Your task to perform on an android device: Search for "macbook pro" on ebay.com, select the first entry, and add it to the cart. Image 0: 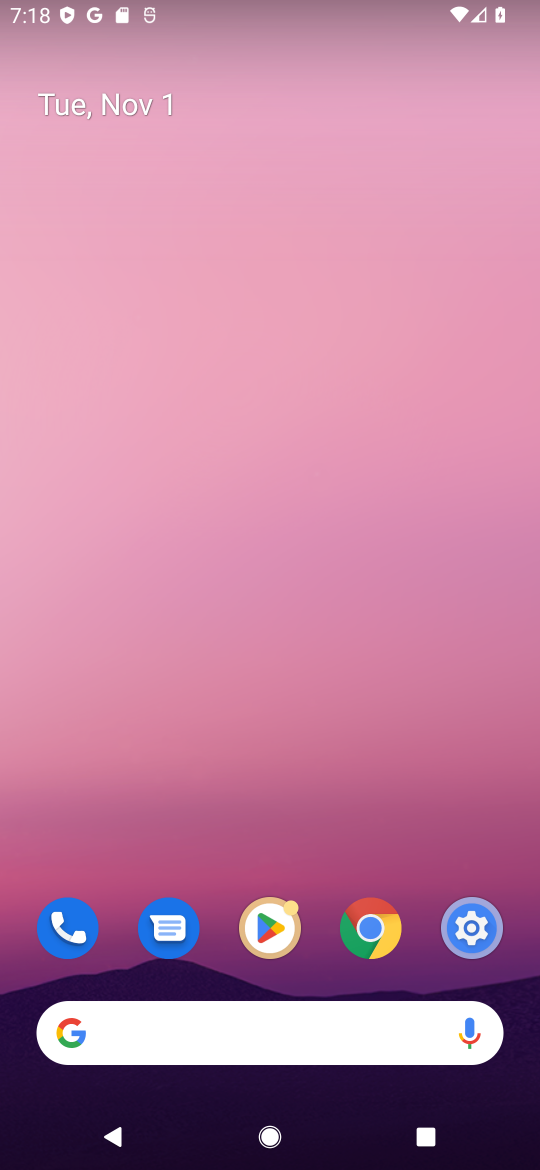
Step 0: click (232, 1039)
Your task to perform on an android device: Search for "macbook pro" on ebay.com, select the first entry, and add it to the cart. Image 1: 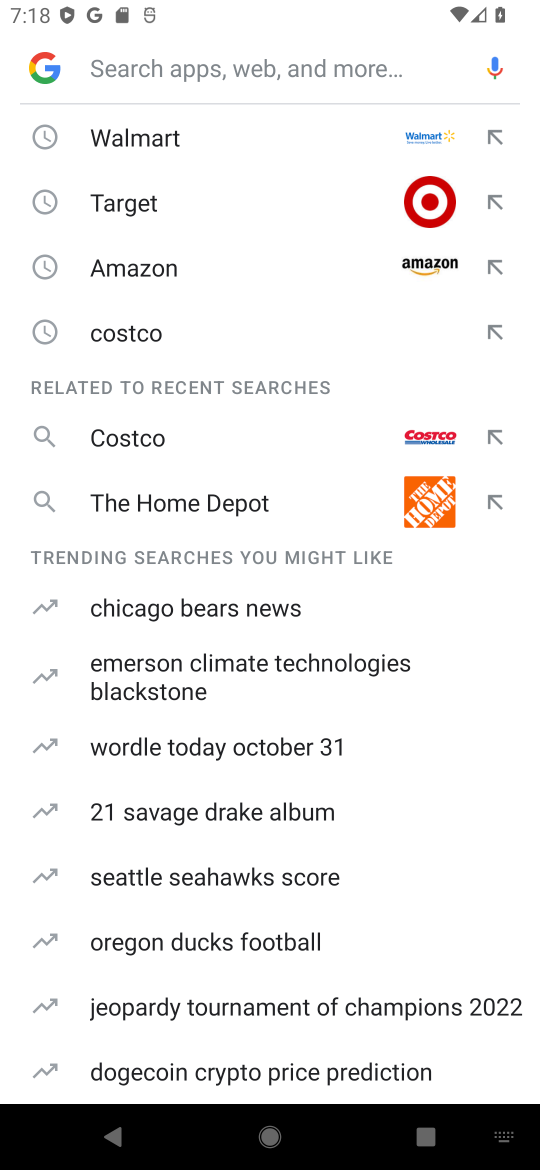
Step 1: type "ebay.com"
Your task to perform on an android device: Search for "macbook pro" on ebay.com, select the first entry, and add it to the cart. Image 2: 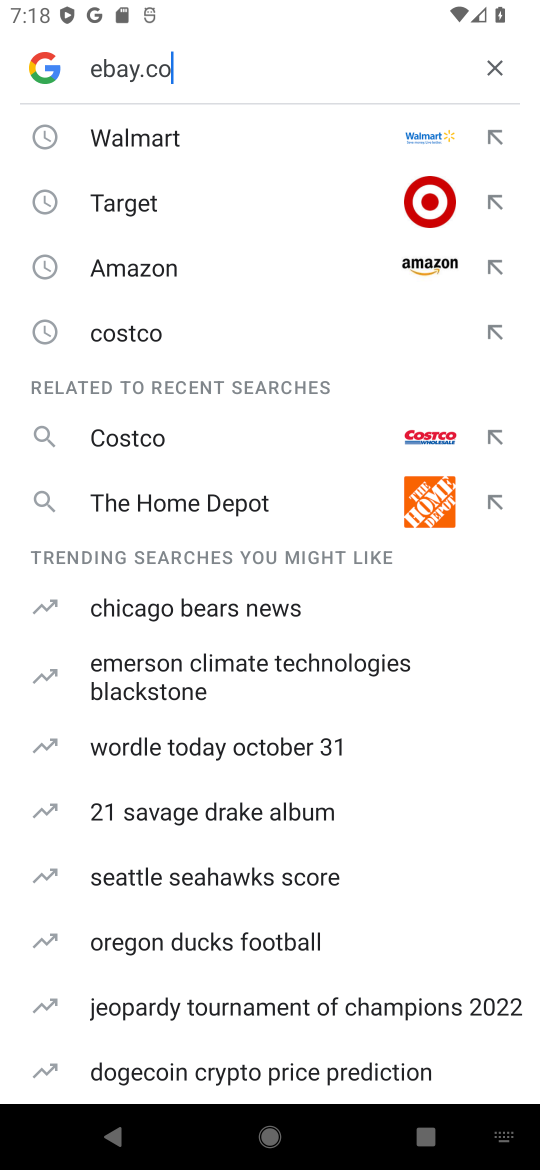
Step 2: type ""
Your task to perform on an android device: Search for "macbook pro" on ebay.com, select the first entry, and add it to the cart. Image 3: 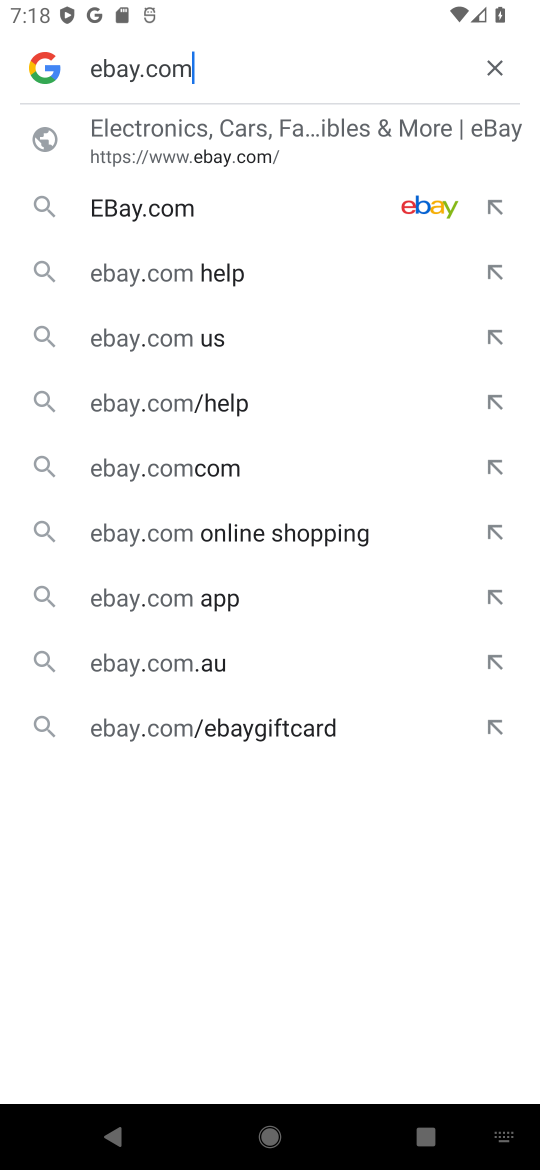
Step 3: click (124, 210)
Your task to perform on an android device: Search for "macbook pro" on ebay.com, select the first entry, and add it to the cart. Image 4: 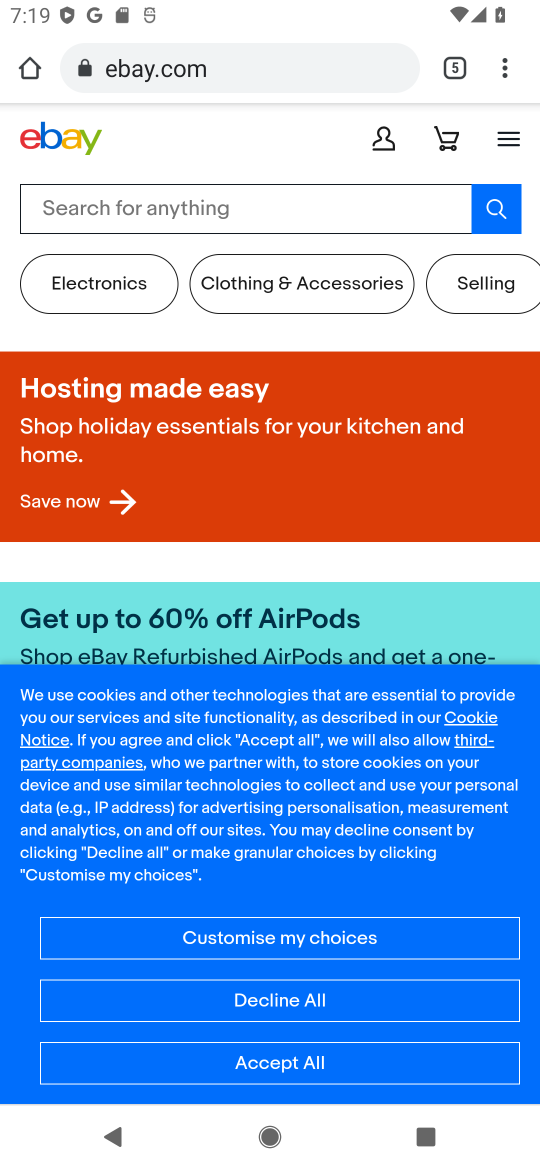
Step 4: click (178, 205)
Your task to perform on an android device: Search for "macbook pro" on ebay.com, select the first entry, and add it to the cart. Image 5: 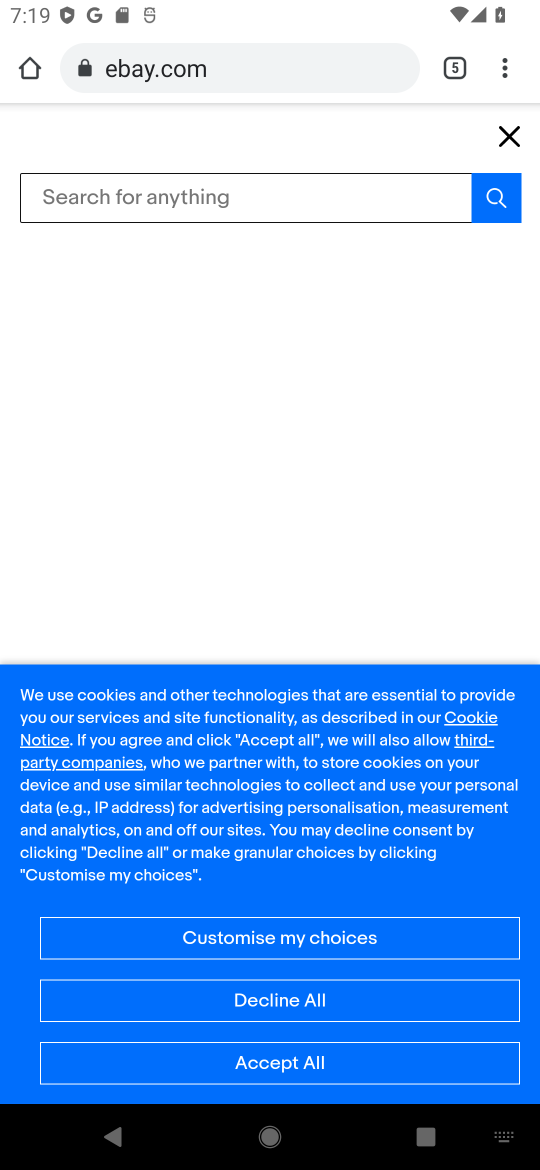
Step 5: type "macbook pro"
Your task to perform on an android device: Search for "macbook pro" on ebay.com, select the first entry, and add it to the cart. Image 6: 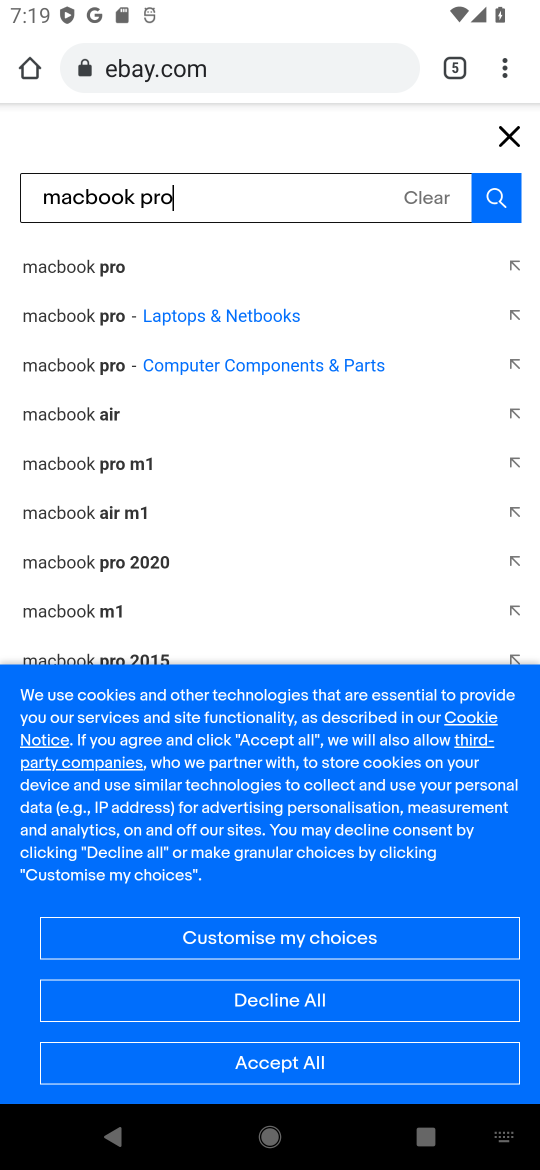
Step 6: click (105, 262)
Your task to perform on an android device: Search for "macbook pro" on ebay.com, select the first entry, and add it to the cart. Image 7: 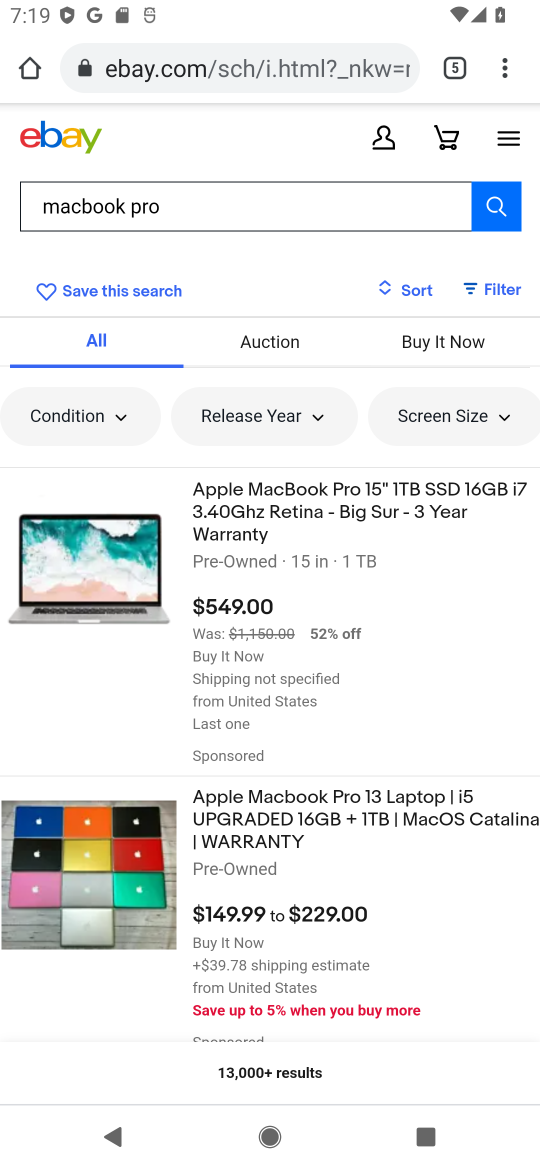
Step 7: click (378, 511)
Your task to perform on an android device: Search for "macbook pro" on ebay.com, select the first entry, and add it to the cart. Image 8: 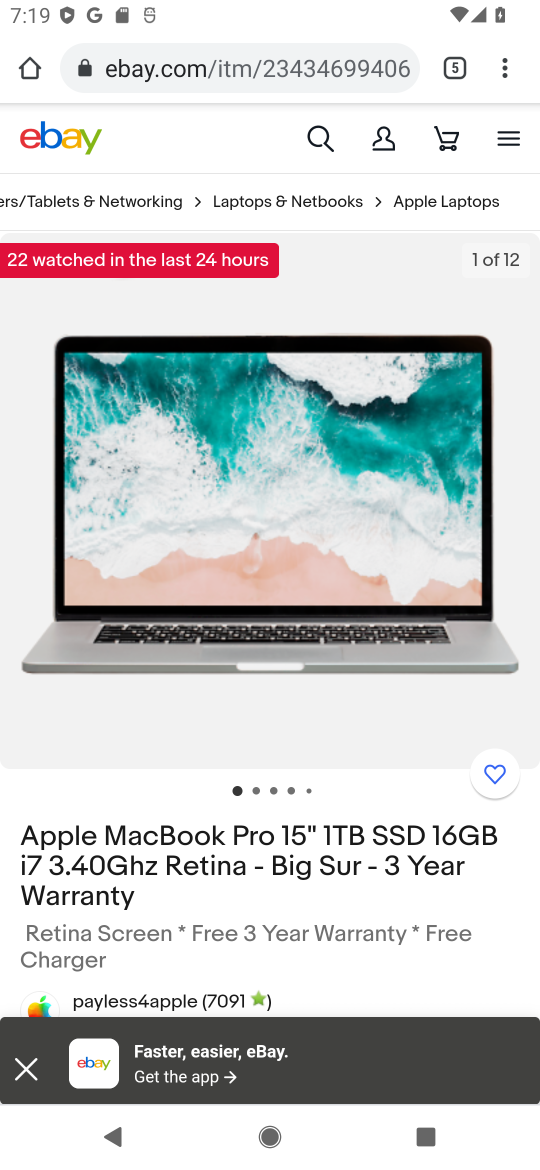
Step 8: drag from (31, 779) to (173, 224)
Your task to perform on an android device: Search for "macbook pro" on ebay.com, select the first entry, and add it to the cart. Image 9: 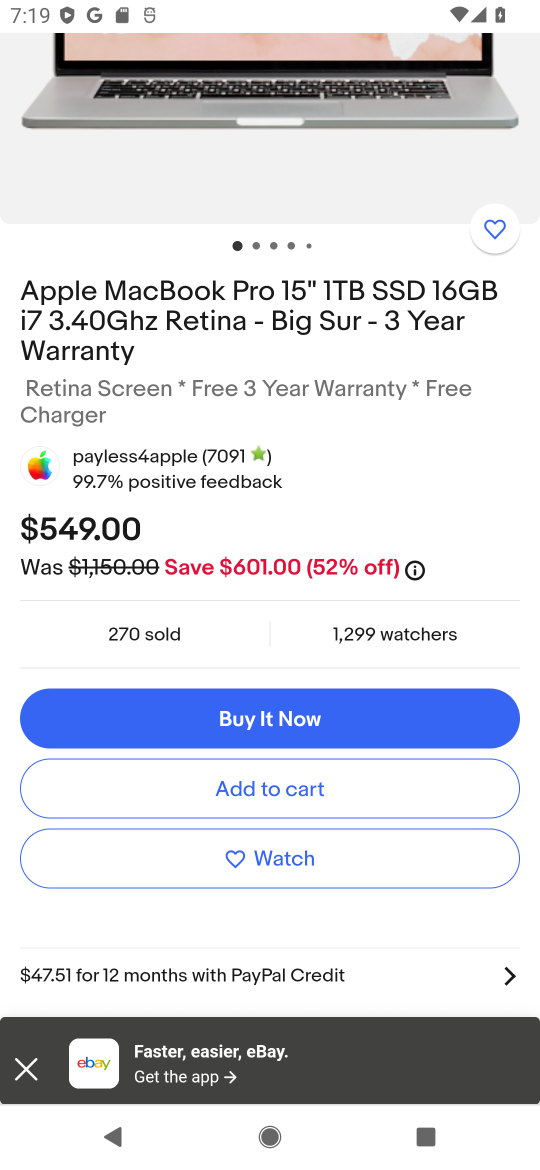
Step 9: click (254, 787)
Your task to perform on an android device: Search for "macbook pro" on ebay.com, select the first entry, and add it to the cart. Image 10: 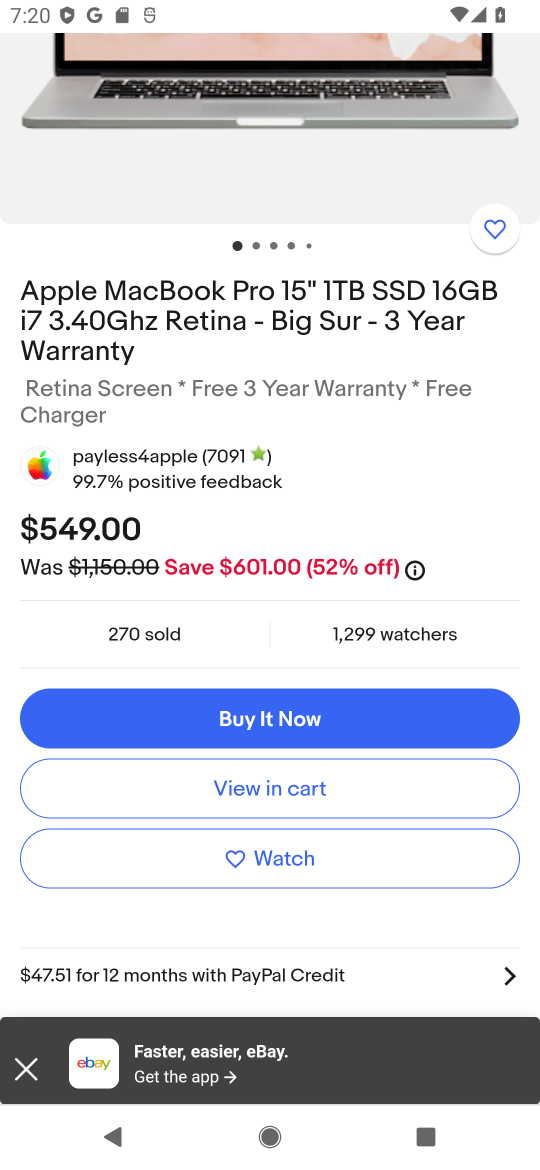
Step 10: click (290, 779)
Your task to perform on an android device: Search for "macbook pro" on ebay.com, select the first entry, and add it to the cart. Image 11: 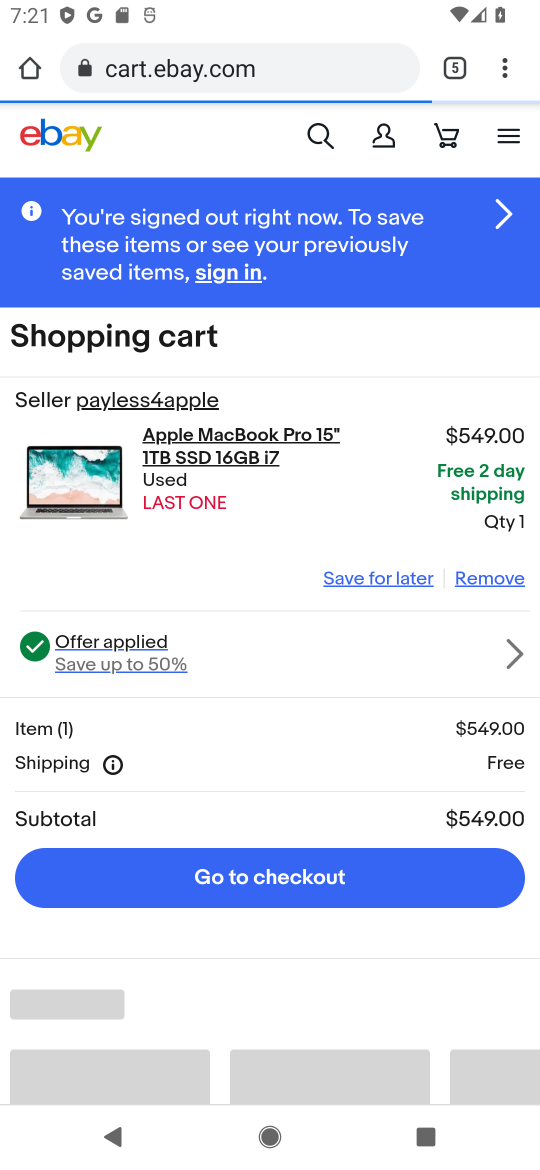
Step 11: task complete